Your task to perform on an android device: turn smart compose on in the gmail app Image 0: 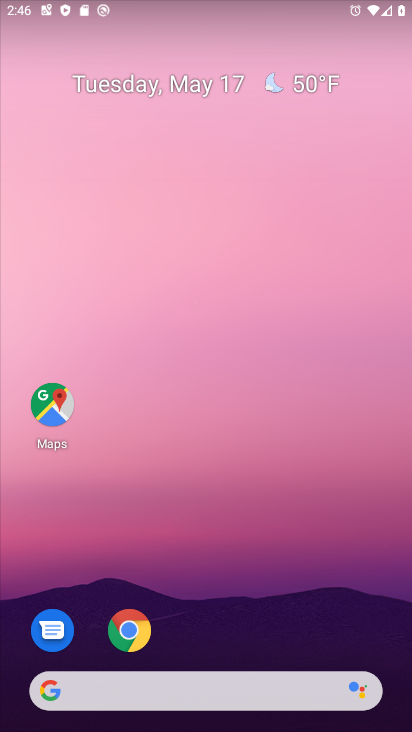
Step 0: drag from (147, 668) to (182, 232)
Your task to perform on an android device: turn smart compose on in the gmail app Image 1: 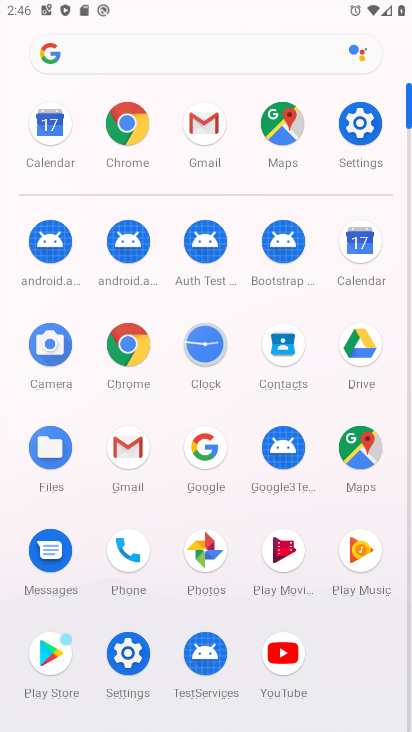
Step 1: click (205, 133)
Your task to perform on an android device: turn smart compose on in the gmail app Image 2: 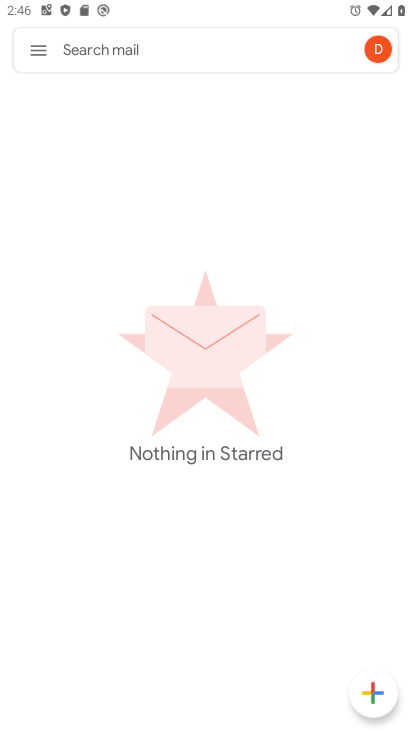
Step 2: click (33, 31)
Your task to perform on an android device: turn smart compose on in the gmail app Image 3: 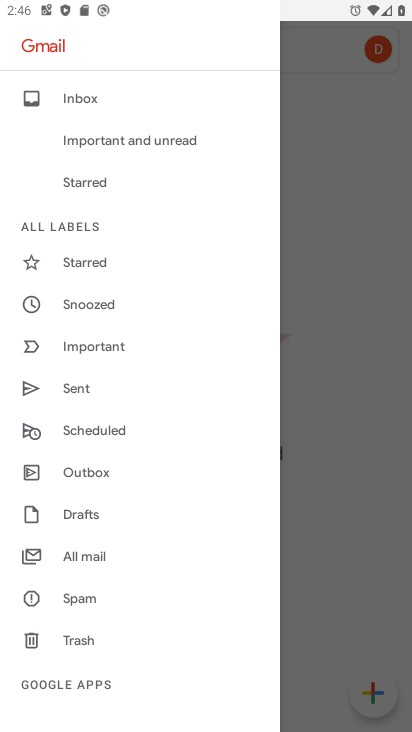
Step 3: drag from (91, 697) to (112, 349)
Your task to perform on an android device: turn smart compose on in the gmail app Image 4: 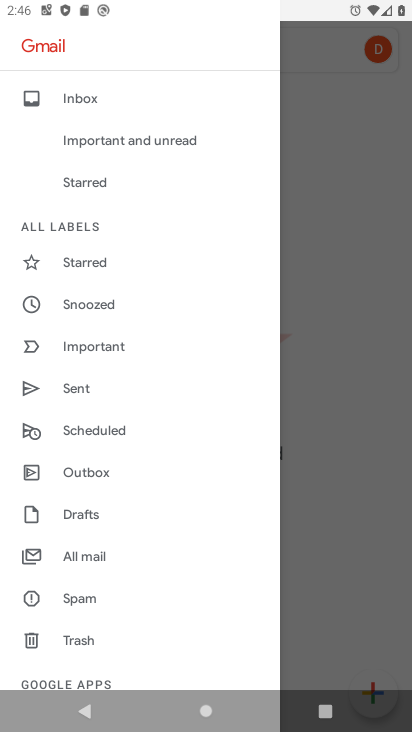
Step 4: drag from (83, 607) to (90, 251)
Your task to perform on an android device: turn smart compose on in the gmail app Image 5: 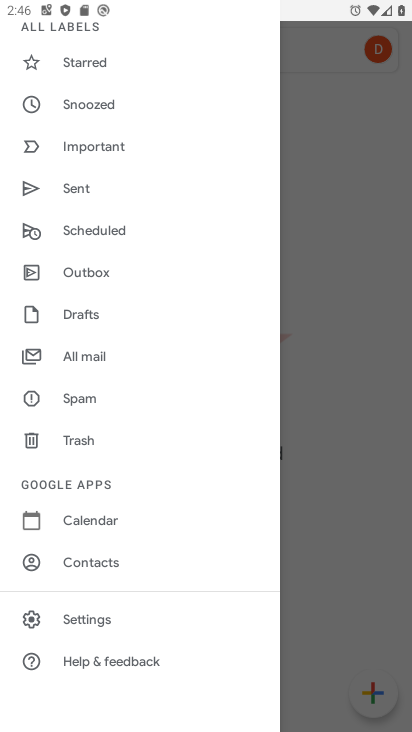
Step 5: click (81, 612)
Your task to perform on an android device: turn smart compose on in the gmail app Image 6: 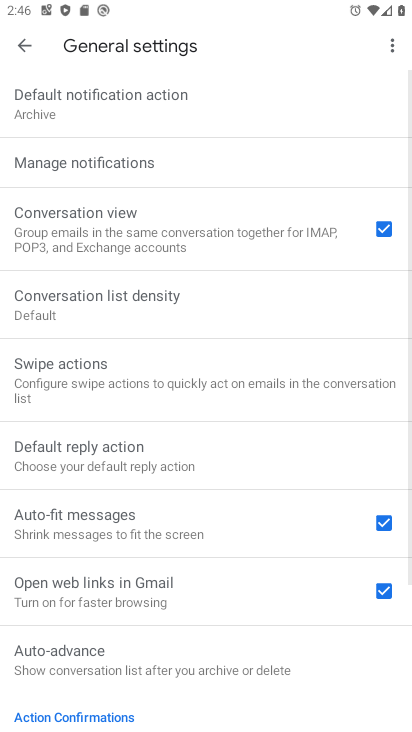
Step 6: drag from (114, 669) to (114, 279)
Your task to perform on an android device: turn smart compose on in the gmail app Image 7: 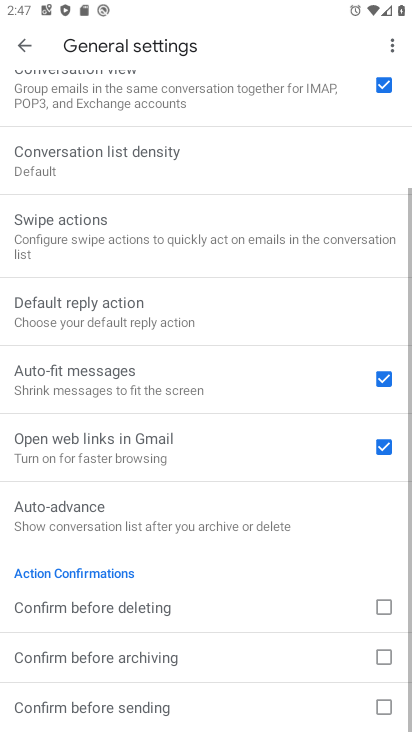
Step 7: click (25, 48)
Your task to perform on an android device: turn smart compose on in the gmail app Image 8: 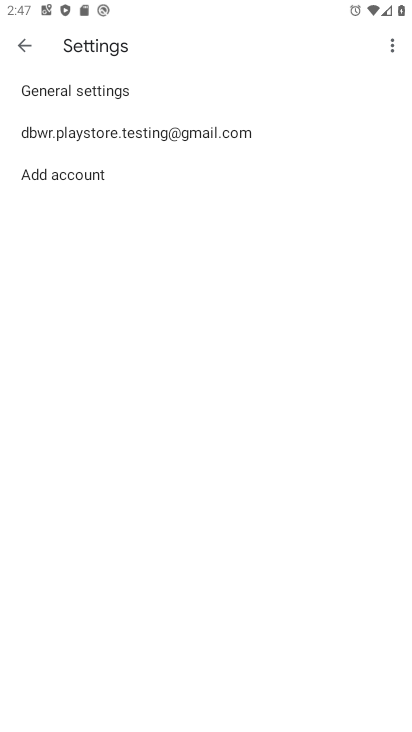
Step 8: click (100, 123)
Your task to perform on an android device: turn smart compose on in the gmail app Image 9: 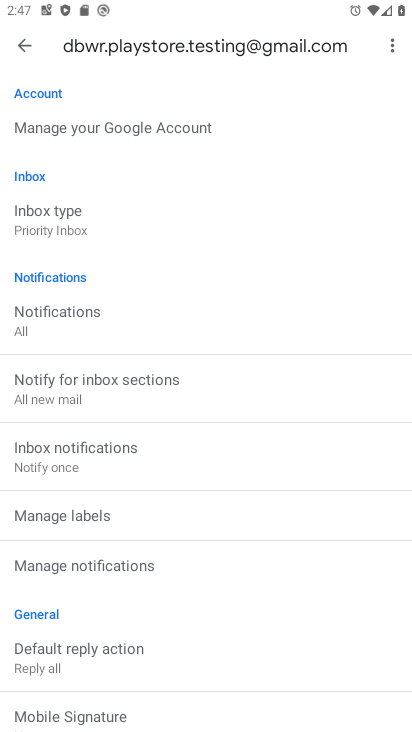
Step 9: task complete